Your task to perform on an android device: visit the assistant section in the google photos Image 0: 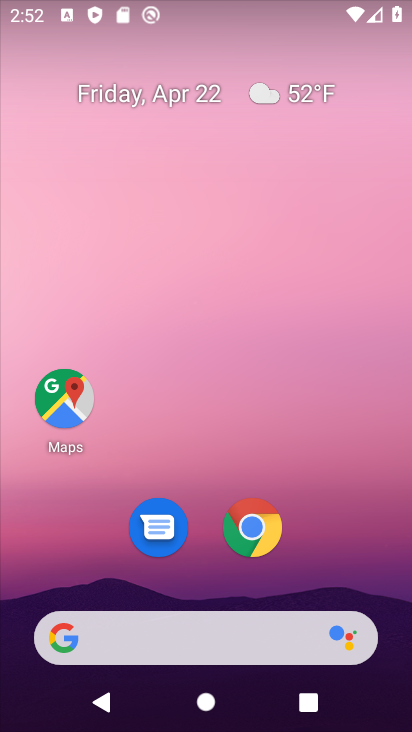
Step 0: drag from (351, 438) to (392, 76)
Your task to perform on an android device: visit the assistant section in the google photos Image 1: 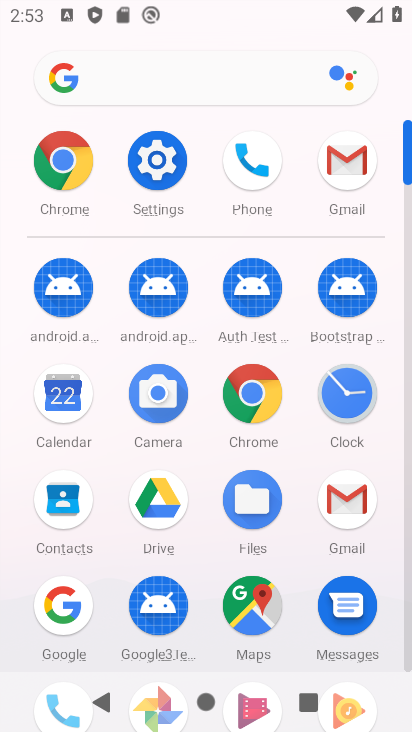
Step 1: drag from (384, 526) to (411, 343)
Your task to perform on an android device: visit the assistant section in the google photos Image 2: 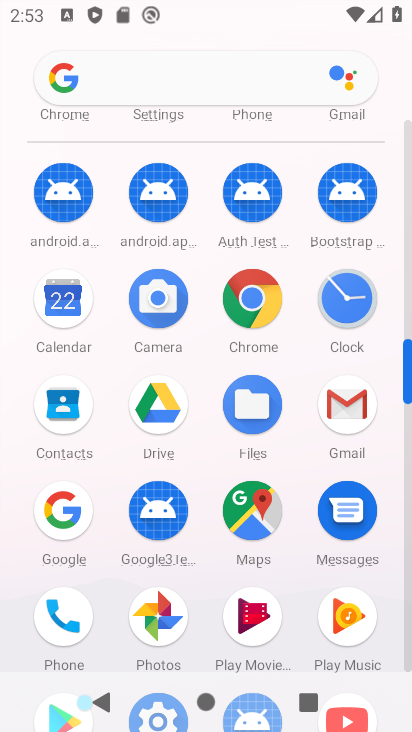
Step 2: drag from (379, 545) to (409, 300)
Your task to perform on an android device: visit the assistant section in the google photos Image 3: 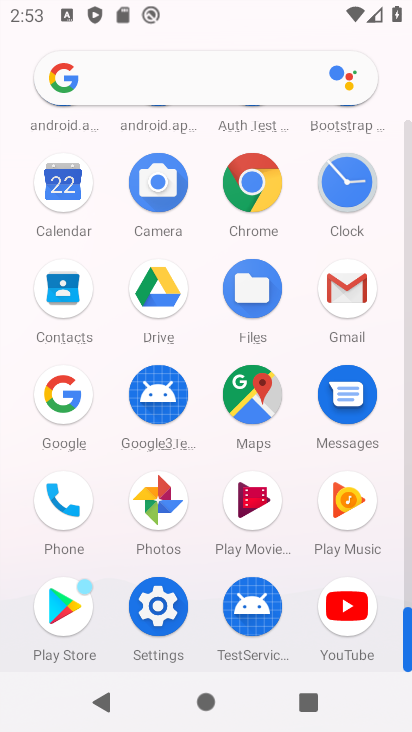
Step 3: click (157, 507)
Your task to perform on an android device: visit the assistant section in the google photos Image 4: 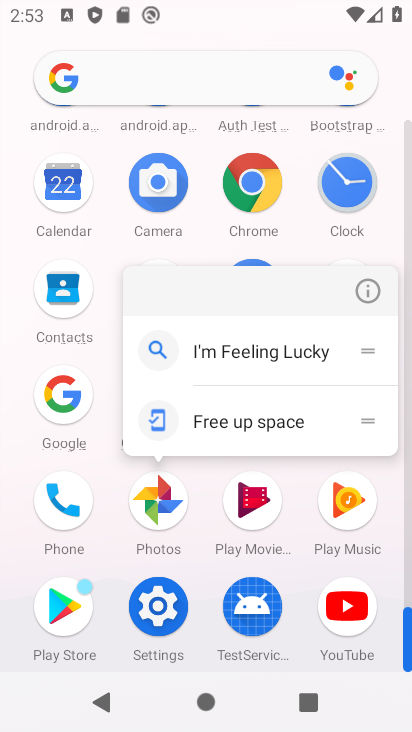
Step 4: click (157, 507)
Your task to perform on an android device: visit the assistant section in the google photos Image 5: 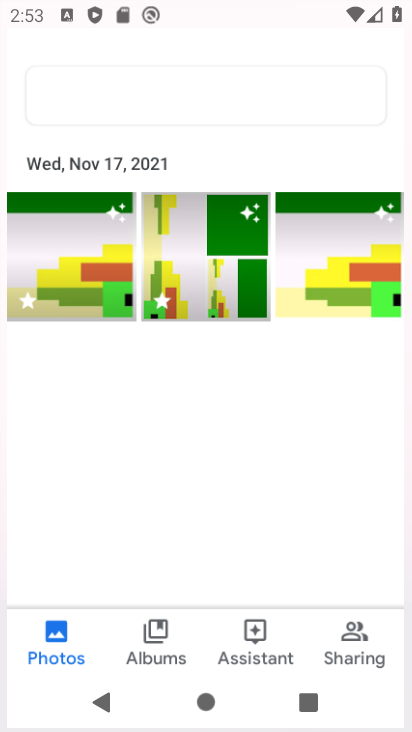
Step 5: click (149, 493)
Your task to perform on an android device: visit the assistant section in the google photos Image 6: 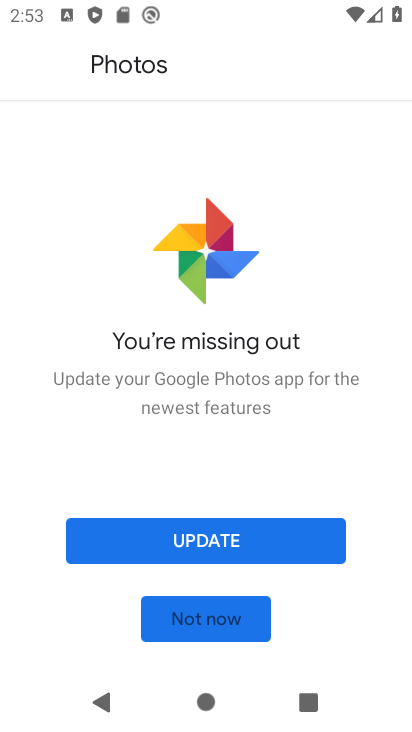
Step 6: click (227, 541)
Your task to perform on an android device: visit the assistant section in the google photos Image 7: 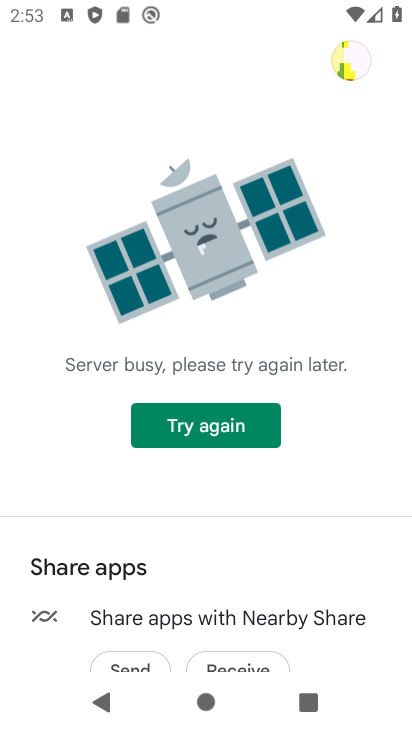
Step 7: click (197, 434)
Your task to perform on an android device: visit the assistant section in the google photos Image 8: 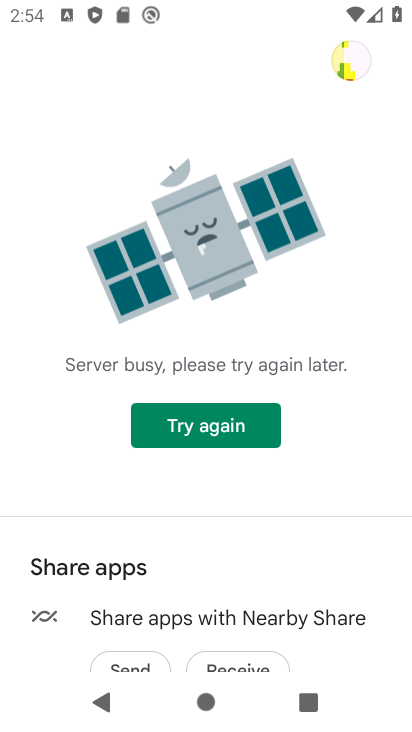
Step 8: click (198, 433)
Your task to perform on an android device: visit the assistant section in the google photos Image 9: 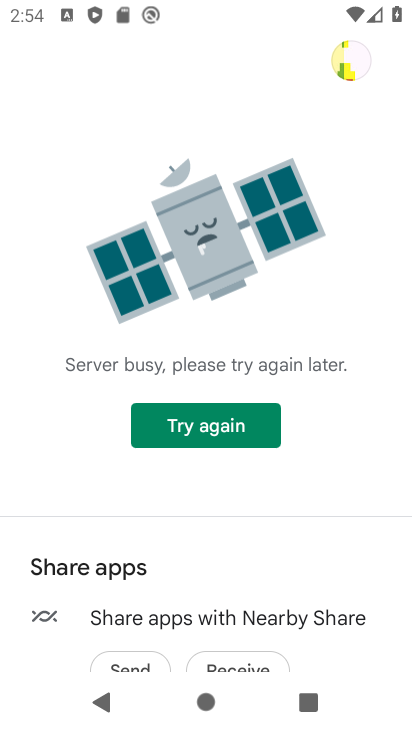
Step 9: click (198, 433)
Your task to perform on an android device: visit the assistant section in the google photos Image 10: 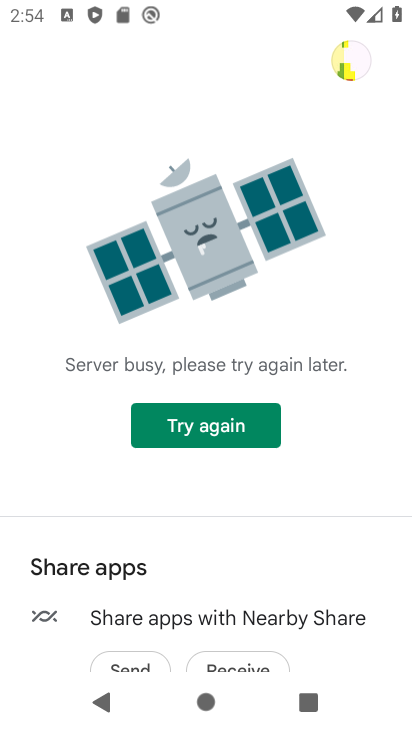
Step 10: click (198, 433)
Your task to perform on an android device: visit the assistant section in the google photos Image 11: 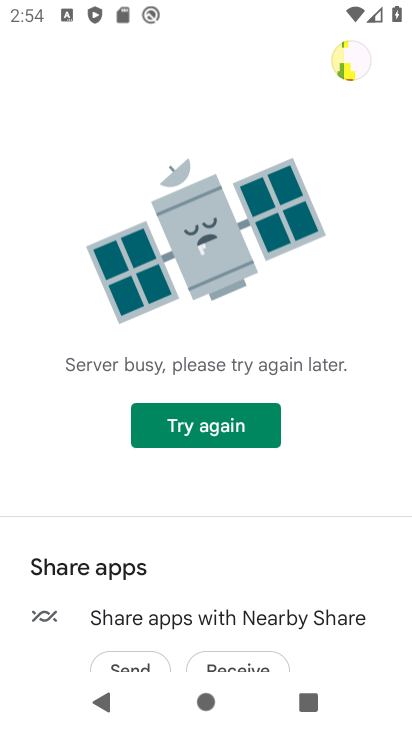
Step 11: click (188, 431)
Your task to perform on an android device: visit the assistant section in the google photos Image 12: 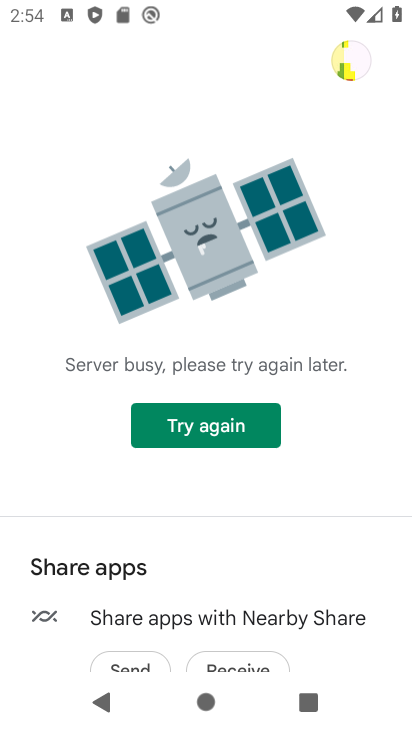
Step 12: task complete